Your task to perform on an android device: Toggle the flashlight Image 0: 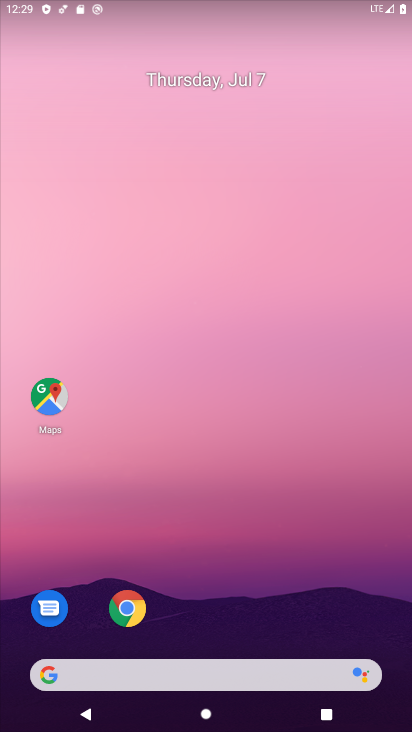
Step 0: drag from (260, 4) to (293, 516)
Your task to perform on an android device: Toggle the flashlight Image 1: 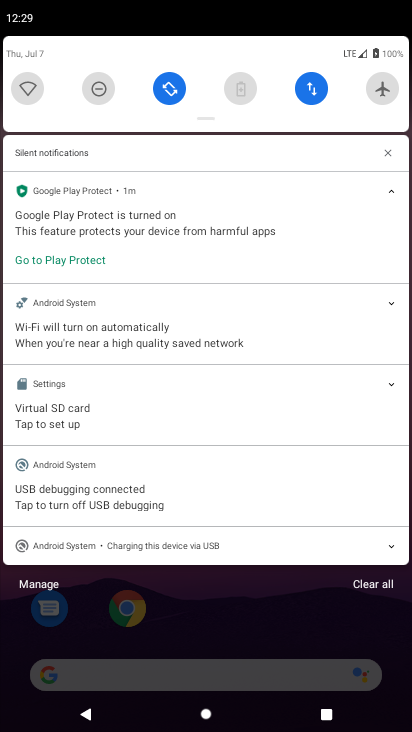
Step 1: task complete